Your task to perform on an android device: Open the web browser Image 0: 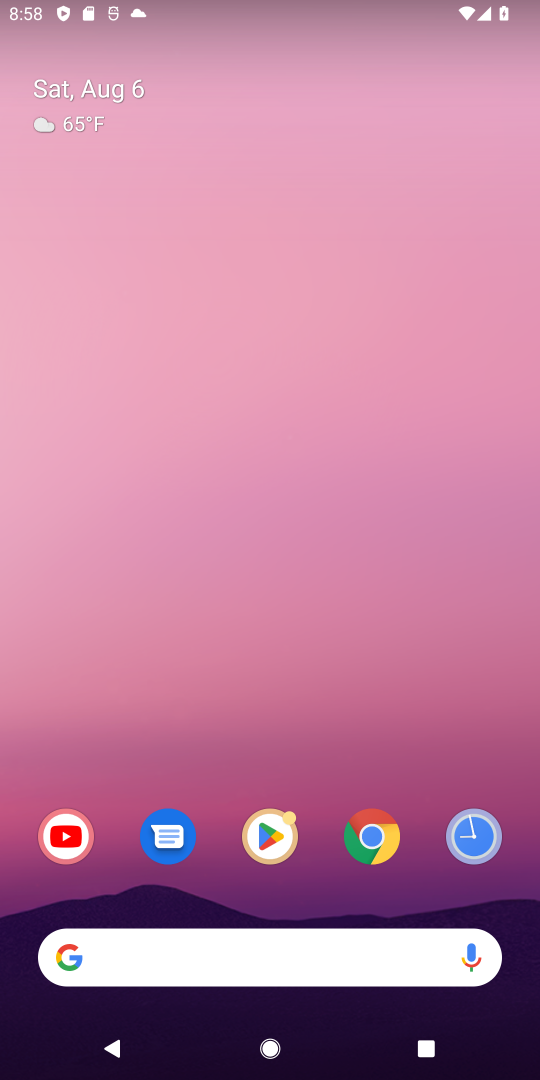
Step 0: press home button
Your task to perform on an android device: Open the web browser Image 1: 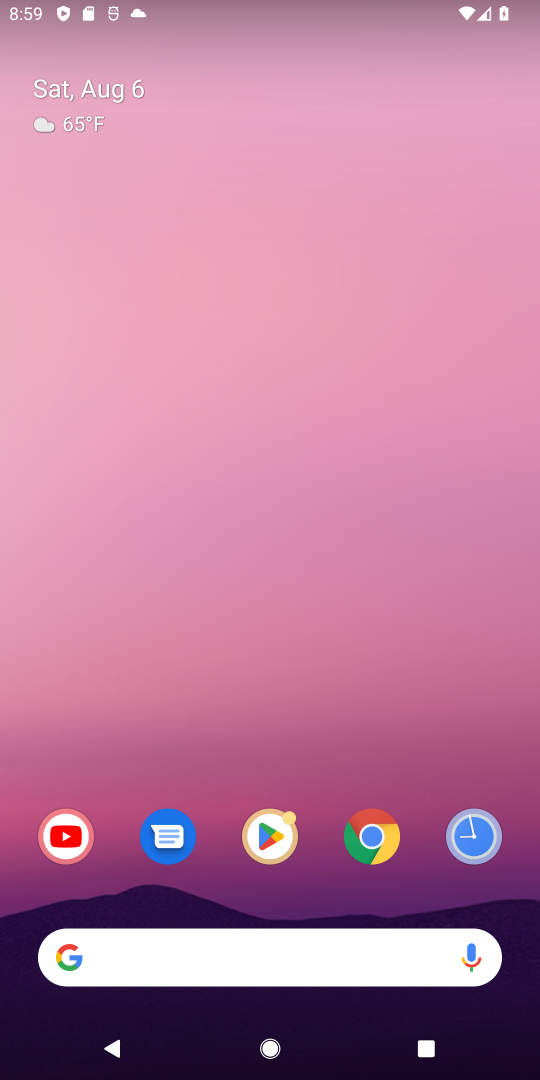
Step 1: click (67, 960)
Your task to perform on an android device: Open the web browser Image 2: 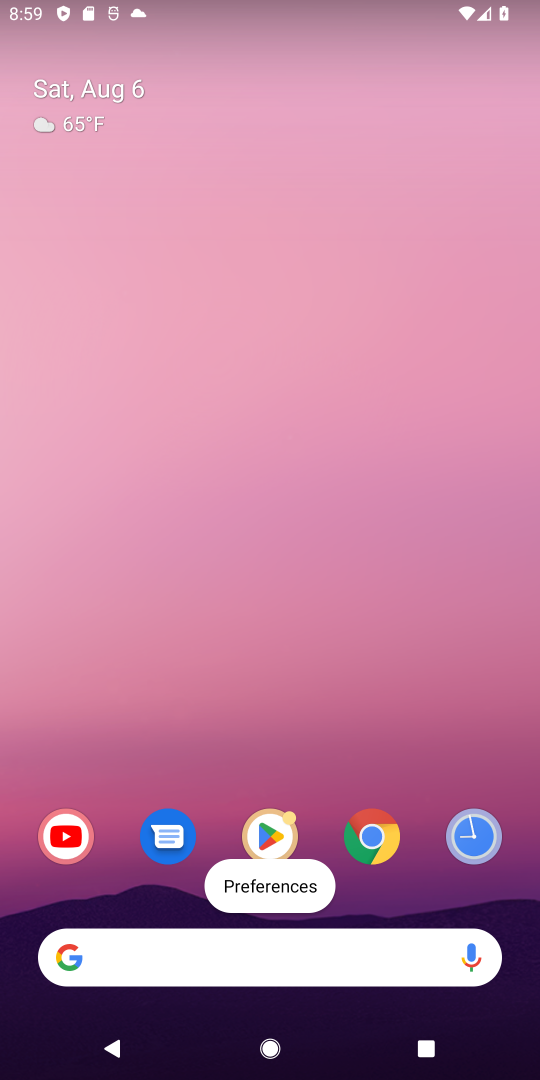
Step 2: click (71, 950)
Your task to perform on an android device: Open the web browser Image 3: 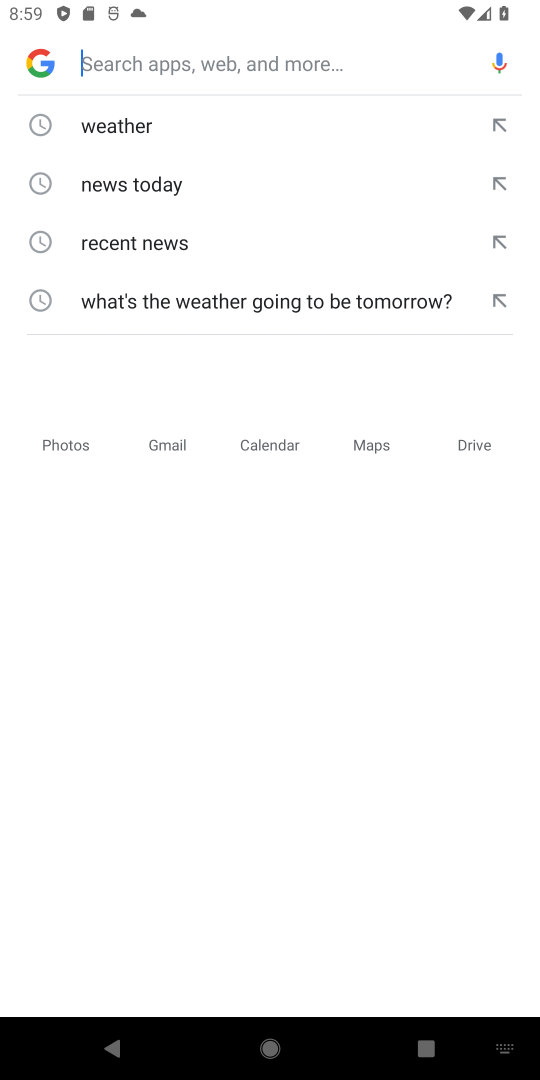
Step 3: task complete